Your task to perform on an android device: Open the calendar and show me this week's events Image 0: 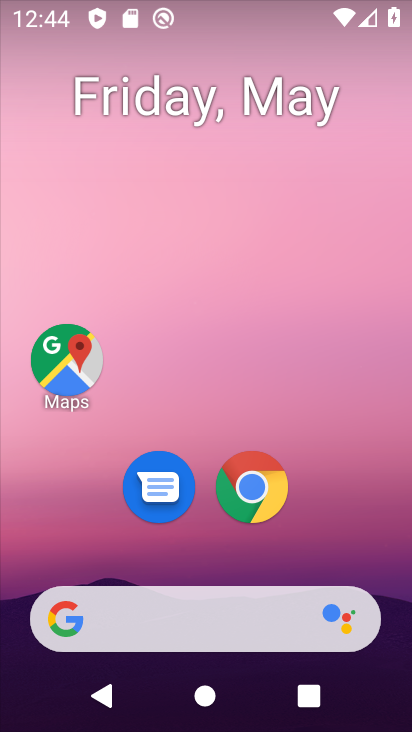
Step 0: click (230, 127)
Your task to perform on an android device: Open the calendar and show me this week's events Image 1: 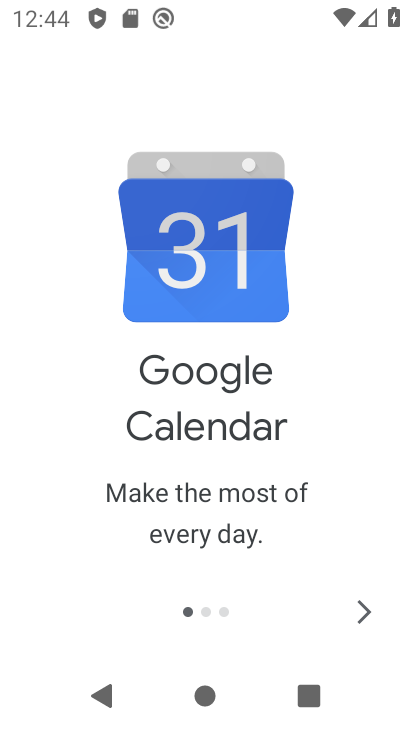
Step 1: click (373, 603)
Your task to perform on an android device: Open the calendar and show me this week's events Image 2: 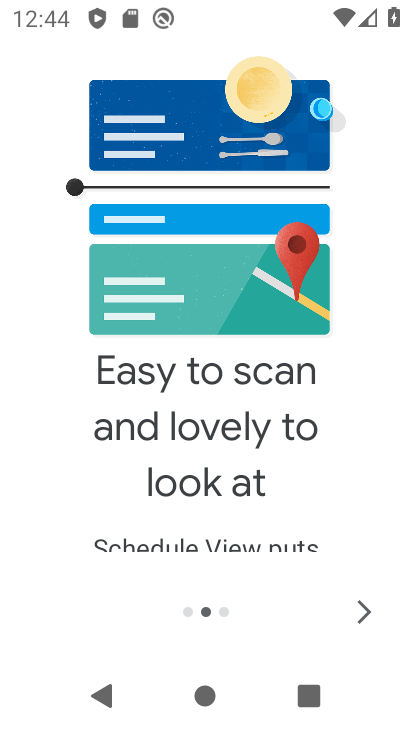
Step 2: click (373, 603)
Your task to perform on an android device: Open the calendar and show me this week's events Image 3: 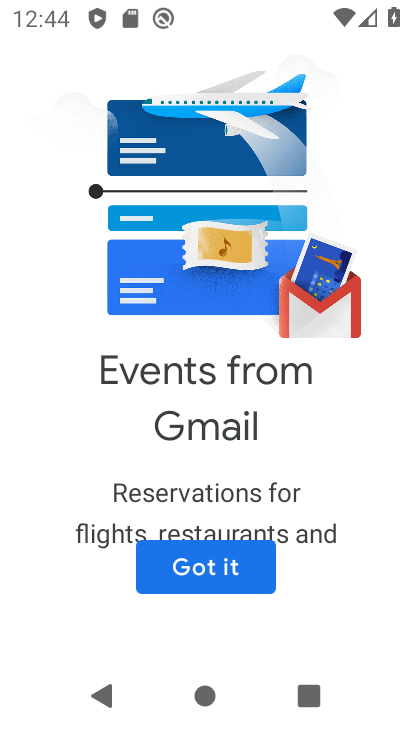
Step 3: click (217, 597)
Your task to perform on an android device: Open the calendar and show me this week's events Image 4: 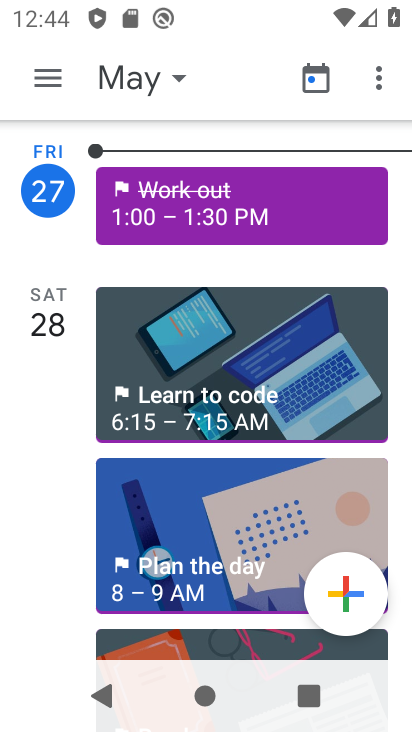
Step 4: click (224, 58)
Your task to perform on an android device: Open the calendar and show me this week's events Image 5: 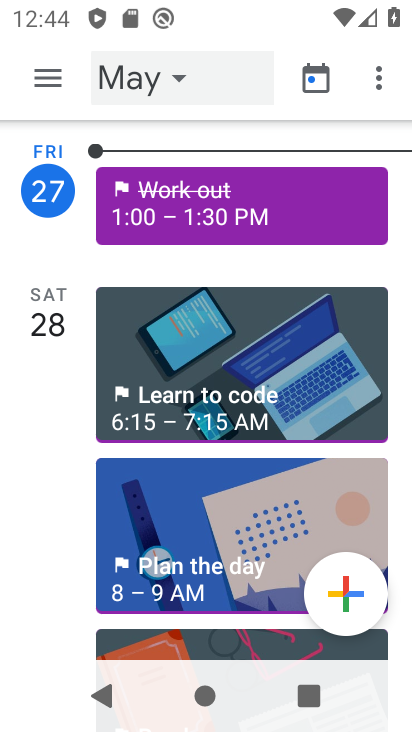
Step 5: click (167, 80)
Your task to perform on an android device: Open the calendar and show me this week's events Image 6: 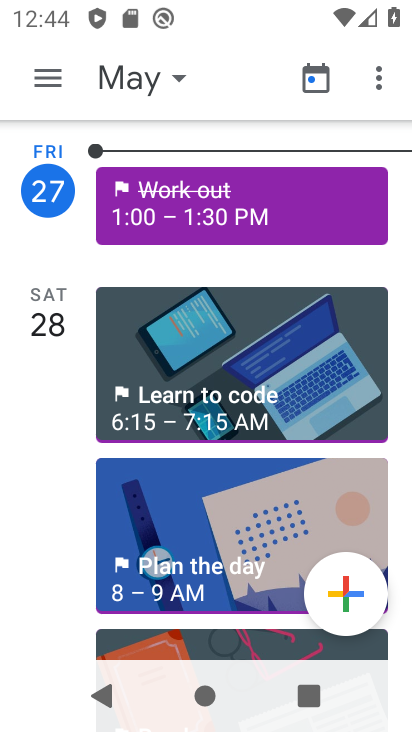
Step 6: click (167, 80)
Your task to perform on an android device: Open the calendar and show me this week's events Image 7: 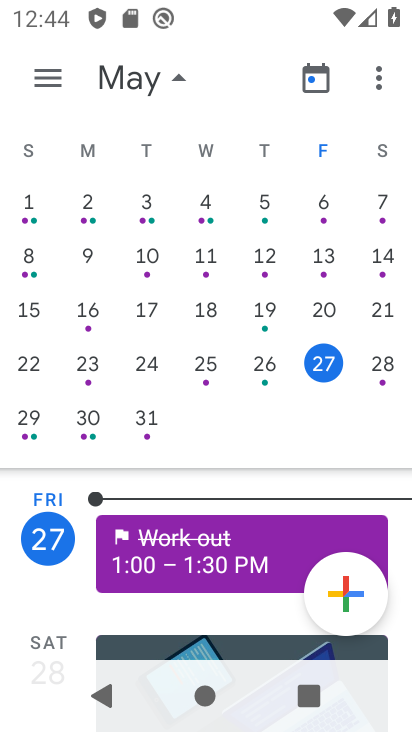
Step 7: drag from (21, 620) to (111, 286)
Your task to perform on an android device: Open the calendar and show me this week's events Image 8: 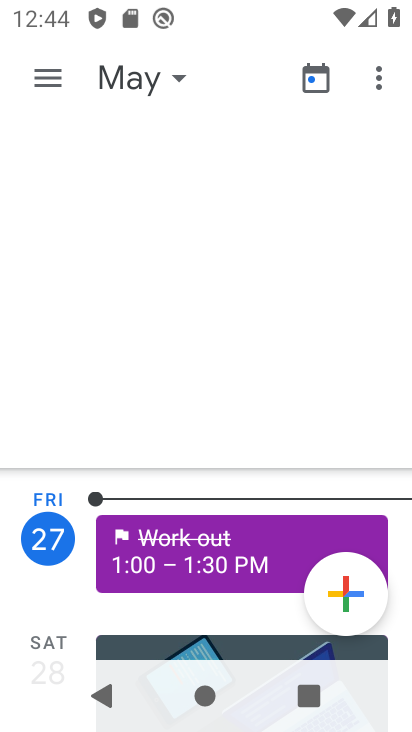
Step 8: click (43, 61)
Your task to perform on an android device: Open the calendar and show me this week's events Image 9: 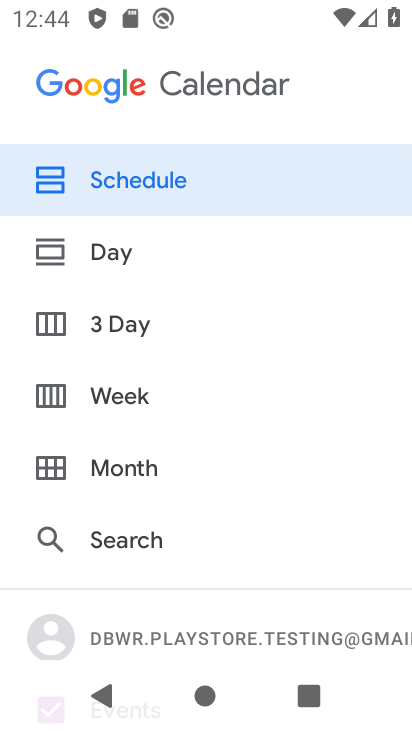
Step 9: click (138, 406)
Your task to perform on an android device: Open the calendar and show me this week's events Image 10: 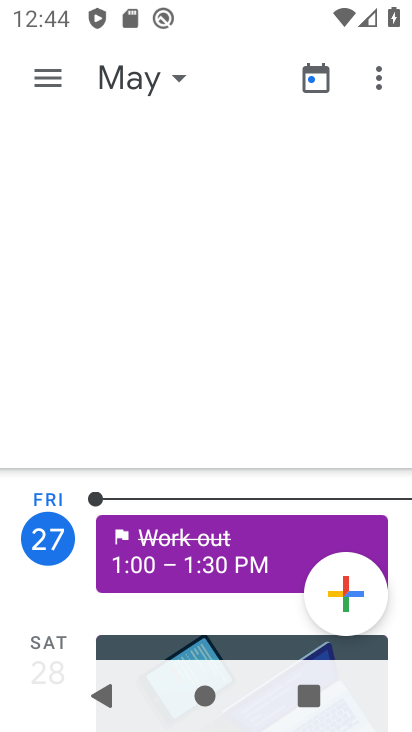
Step 10: click (138, 406)
Your task to perform on an android device: Open the calendar and show me this week's events Image 11: 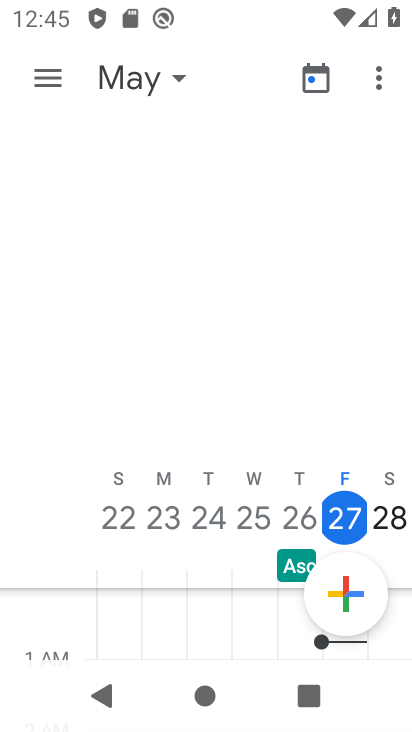
Step 11: task complete